Your task to perform on an android device: add a contact in the contacts app Image 0: 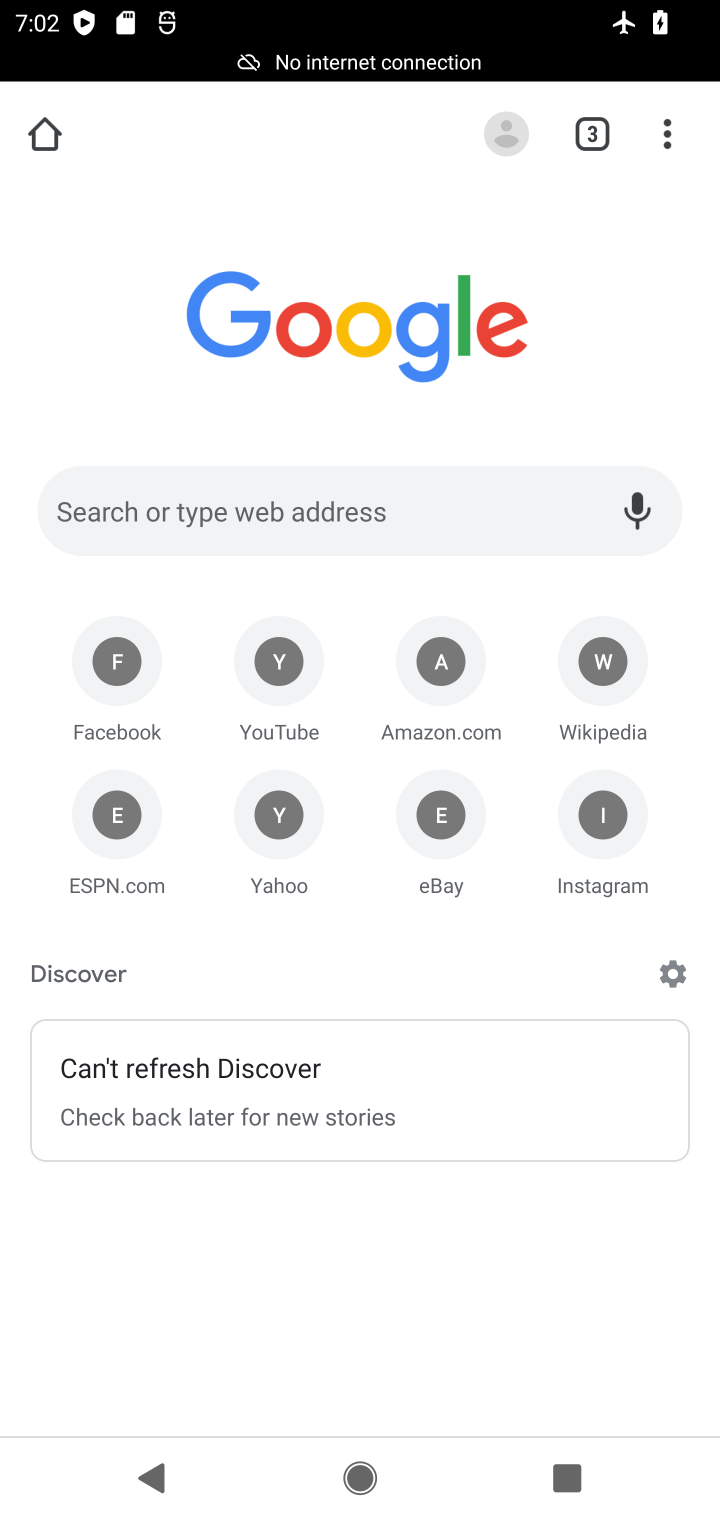
Step 0: press home button
Your task to perform on an android device: add a contact in the contacts app Image 1: 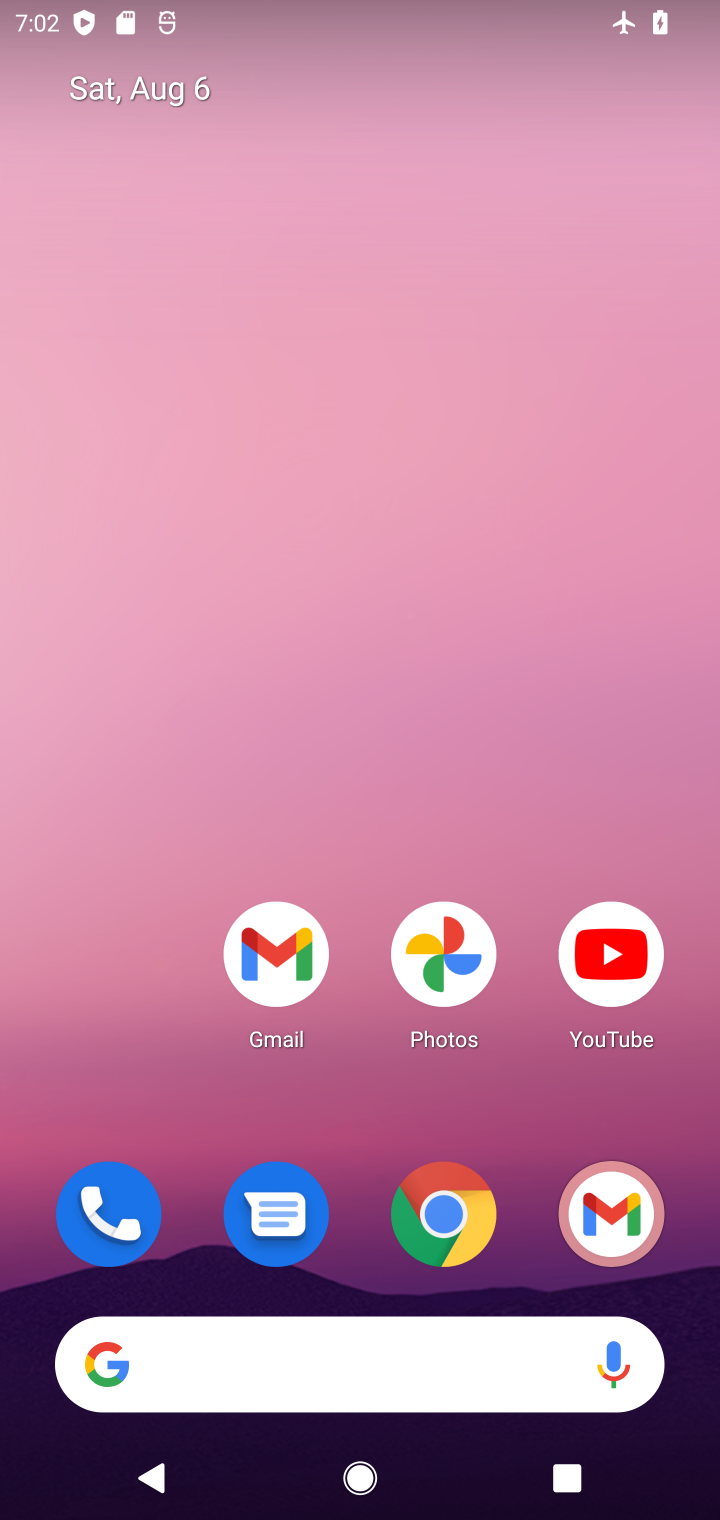
Step 1: drag from (366, 1156) to (383, 75)
Your task to perform on an android device: add a contact in the contacts app Image 2: 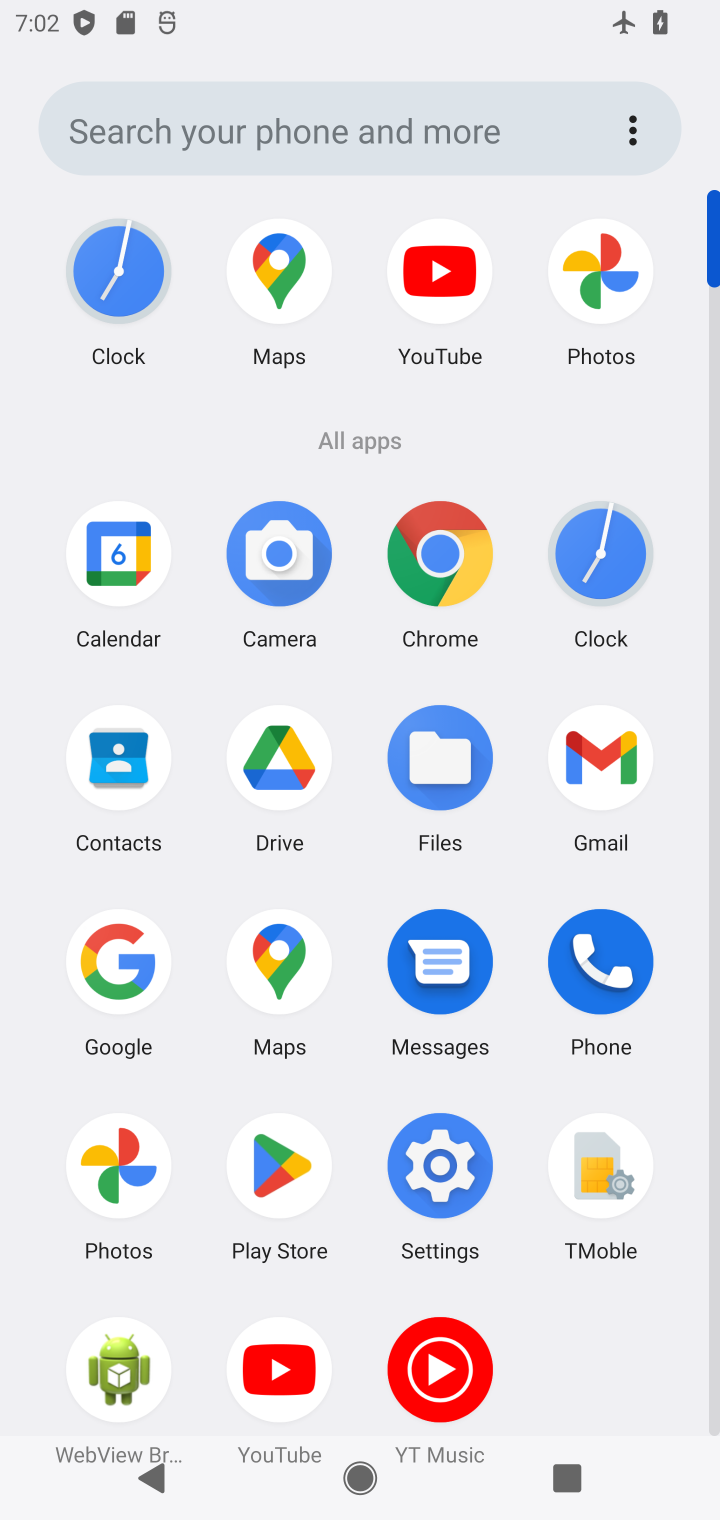
Step 2: click (110, 759)
Your task to perform on an android device: add a contact in the contacts app Image 3: 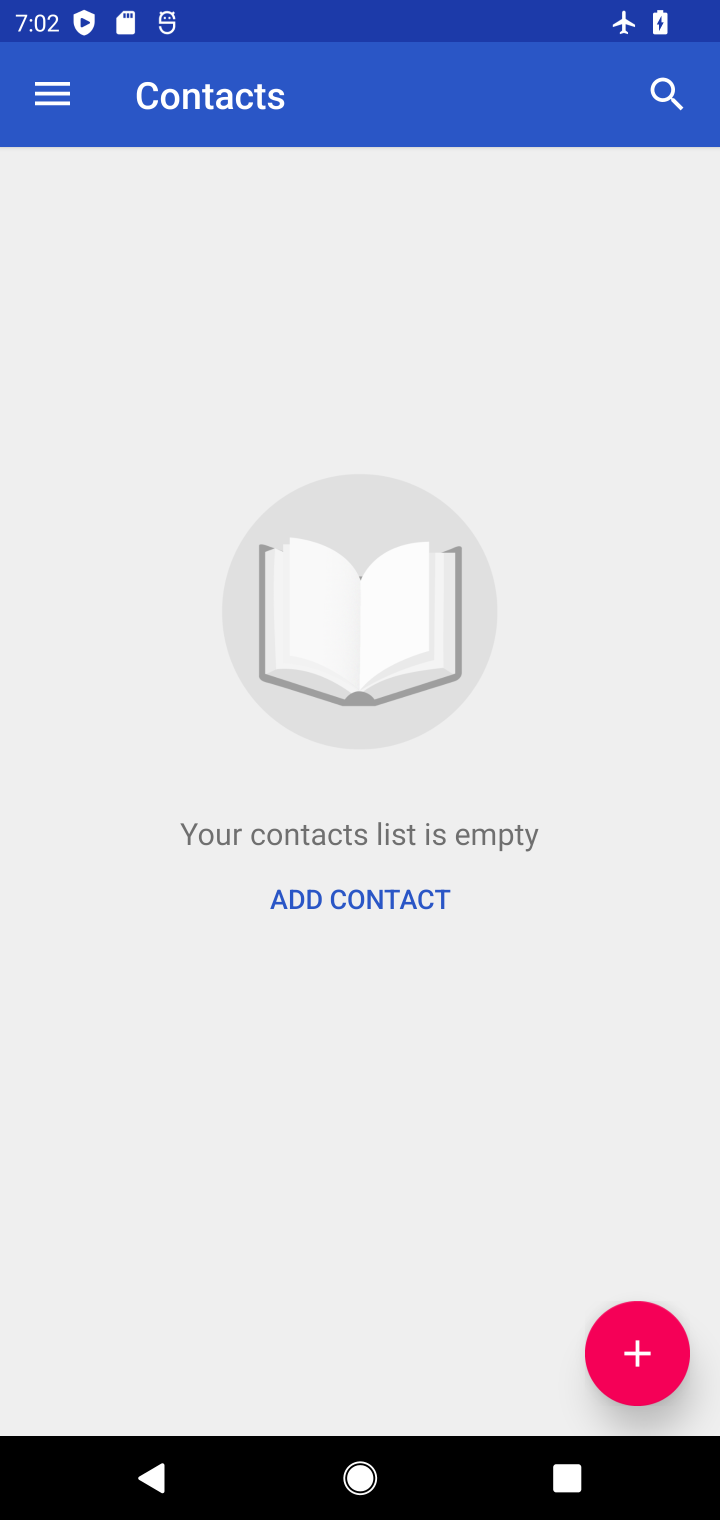
Step 3: click (665, 1344)
Your task to perform on an android device: add a contact in the contacts app Image 4: 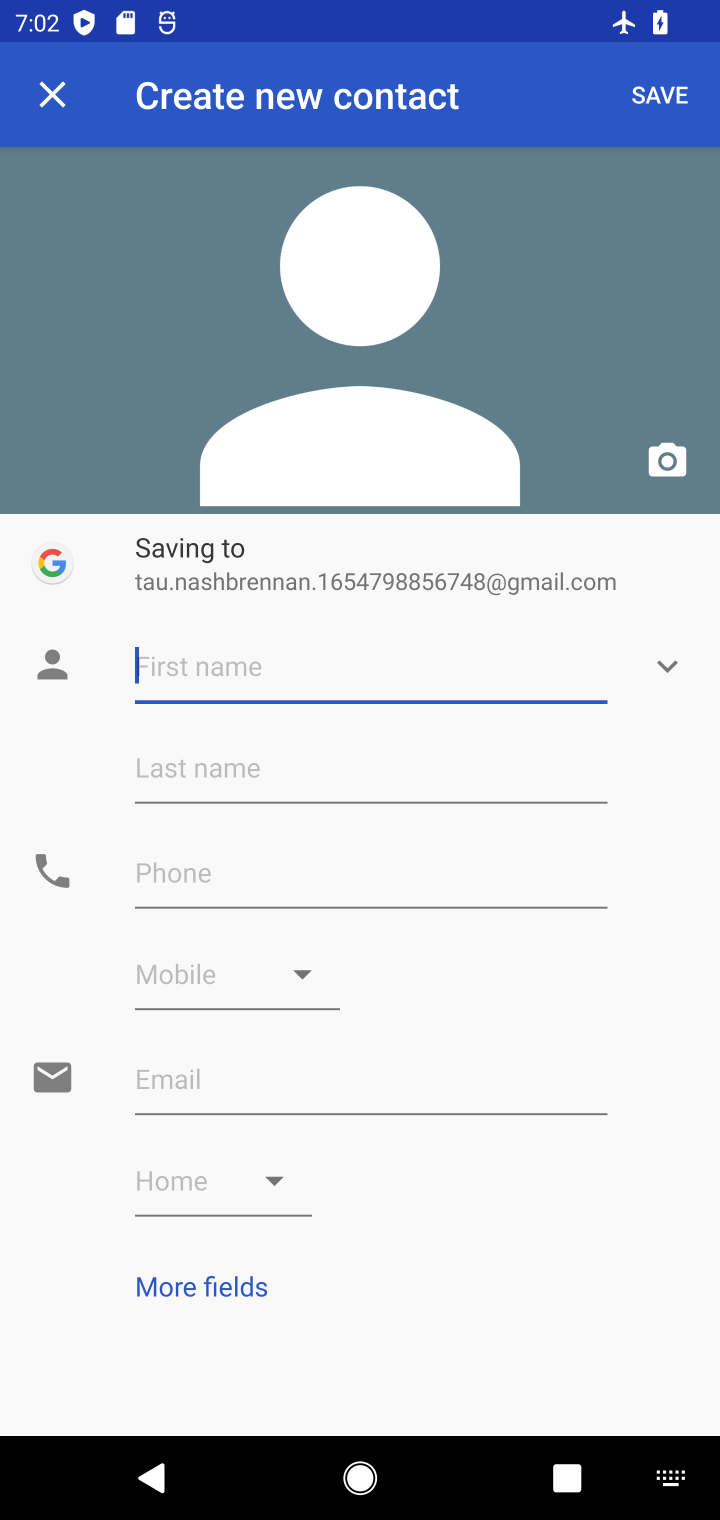
Step 4: type "kanthi"
Your task to perform on an android device: add a contact in the contacts app Image 5: 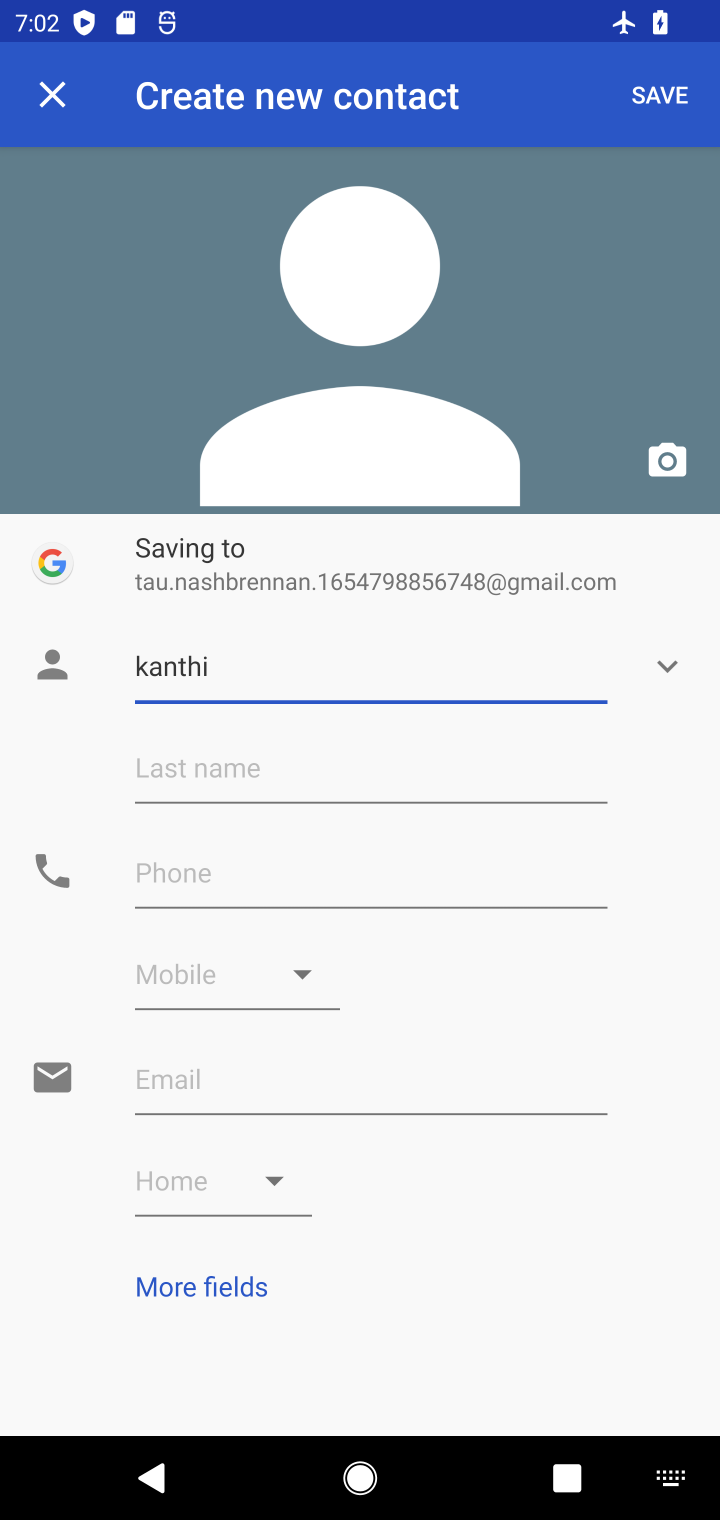
Step 5: click (665, 97)
Your task to perform on an android device: add a contact in the contacts app Image 6: 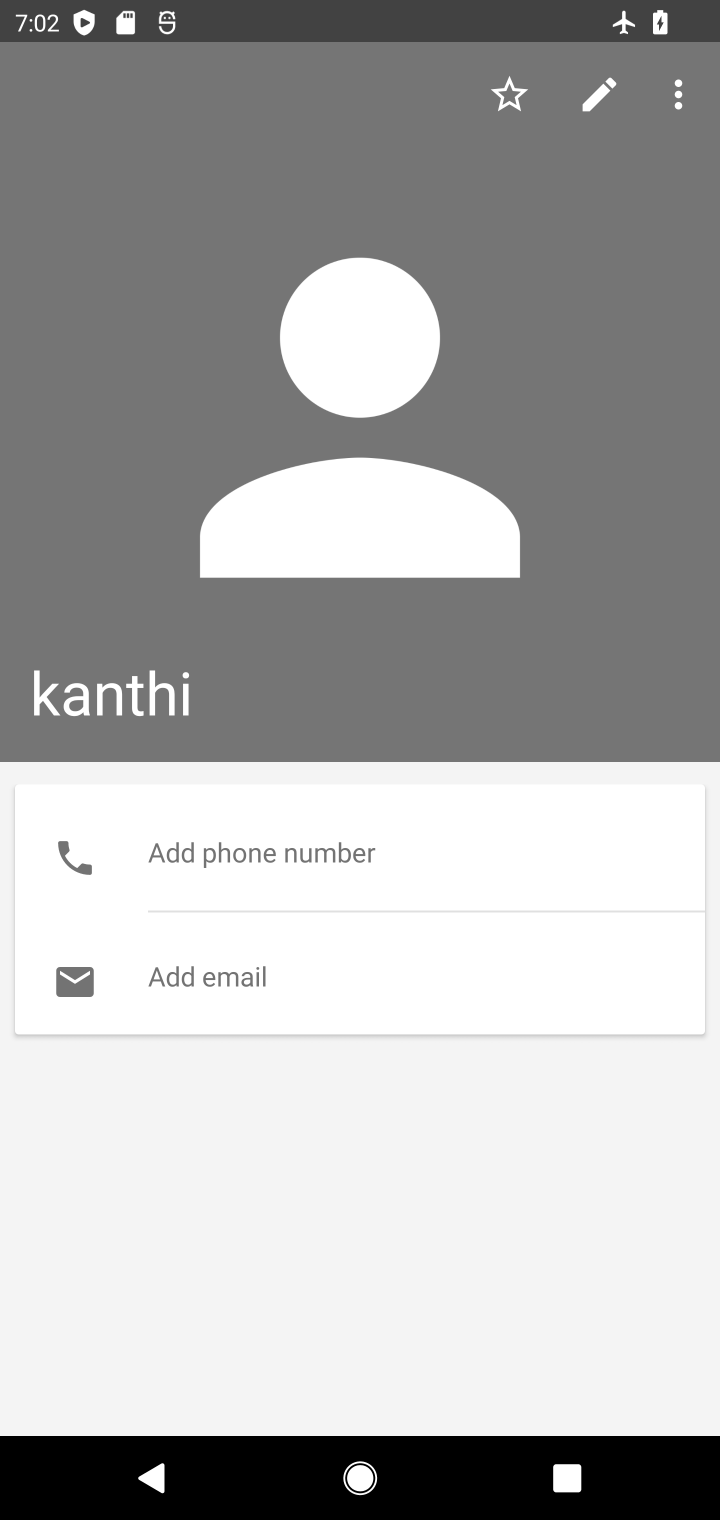
Step 6: task complete